Your task to perform on an android device: check storage Image 0: 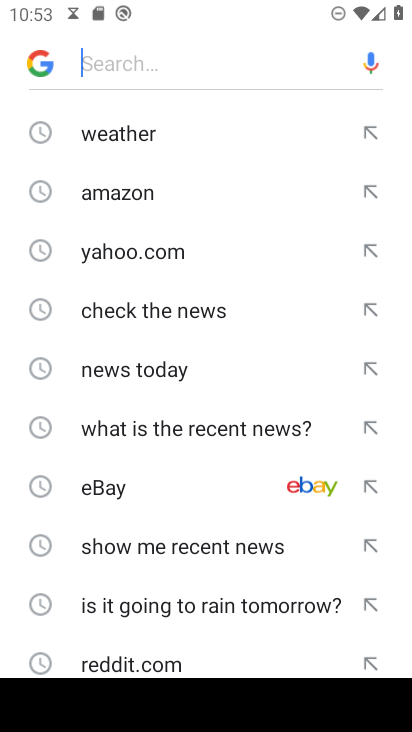
Step 0: press home button
Your task to perform on an android device: check storage Image 1: 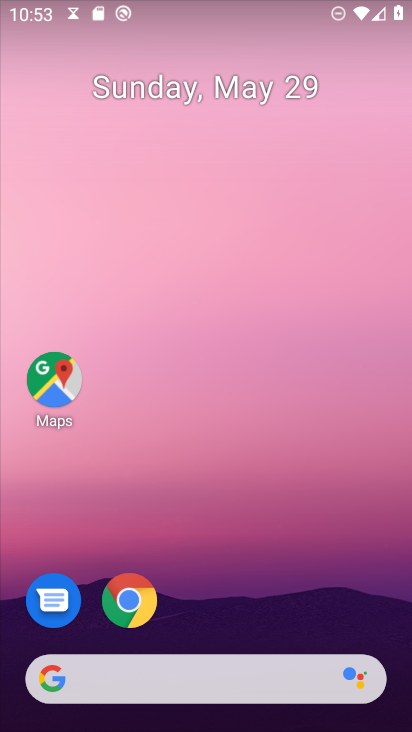
Step 1: drag from (195, 727) to (195, 282)
Your task to perform on an android device: check storage Image 2: 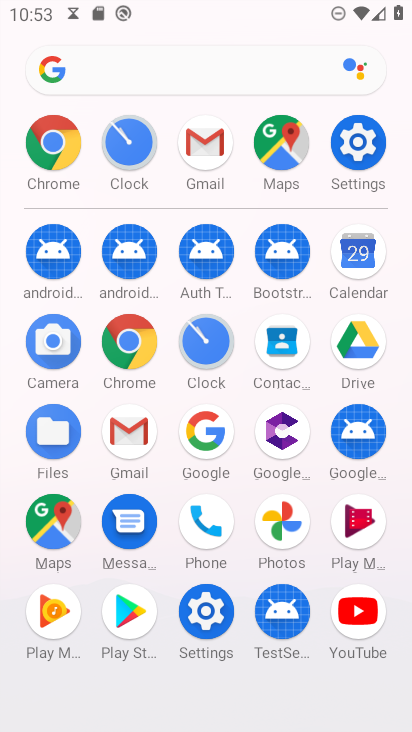
Step 2: click (358, 144)
Your task to perform on an android device: check storage Image 3: 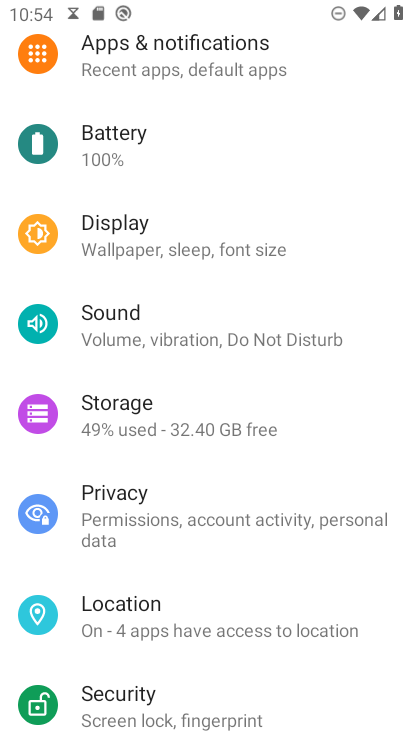
Step 3: click (156, 425)
Your task to perform on an android device: check storage Image 4: 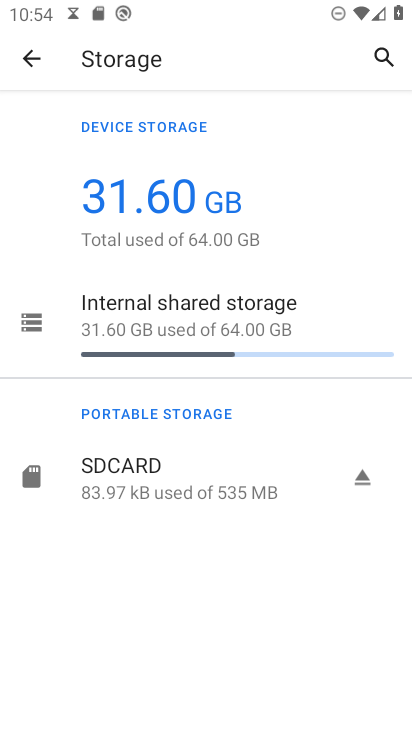
Step 4: task complete